Your task to perform on an android device: turn off priority inbox in the gmail app Image 0: 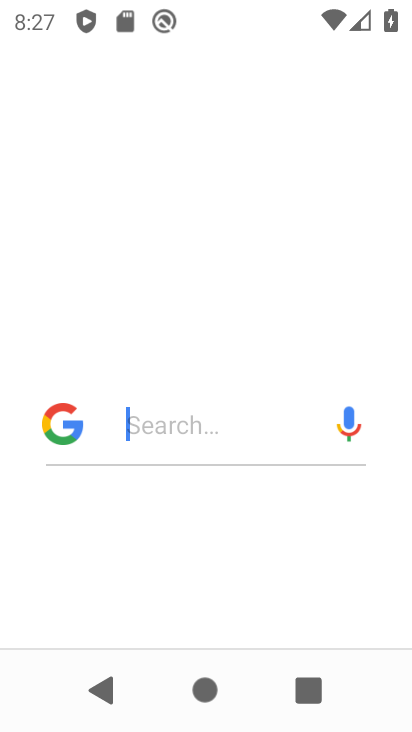
Step 0: press home button
Your task to perform on an android device: turn off priority inbox in the gmail app Image 1: 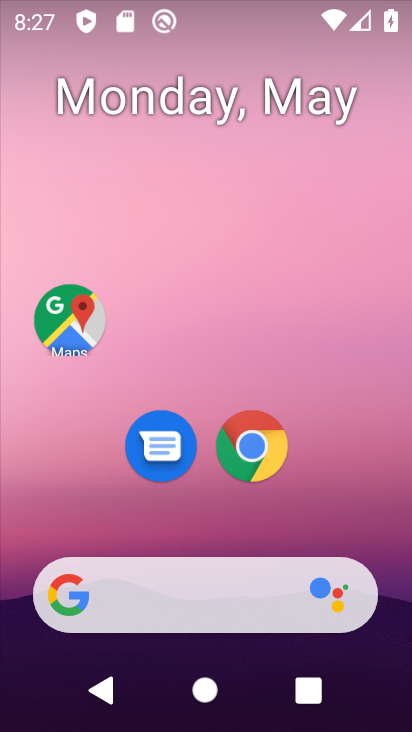
Step 1: drag from (209, 537) to (235, 1)
Your task to perform on an android device: turn off priority inbox in the gmail app Image 2: 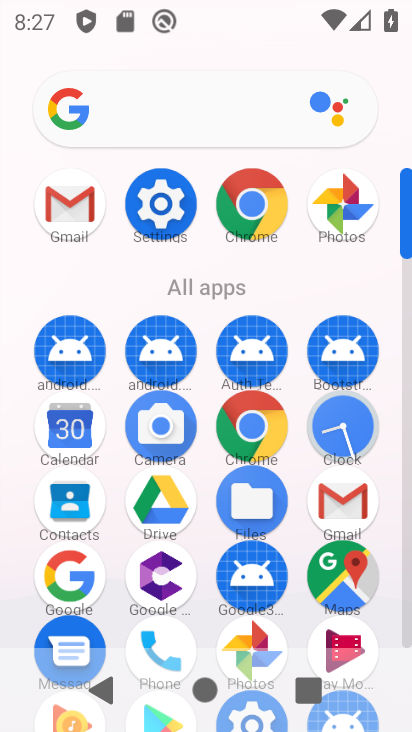
Step 2: click (67, 194)
Your task to perform on an android device: turn off priority inbox in the gmail app Image 3: 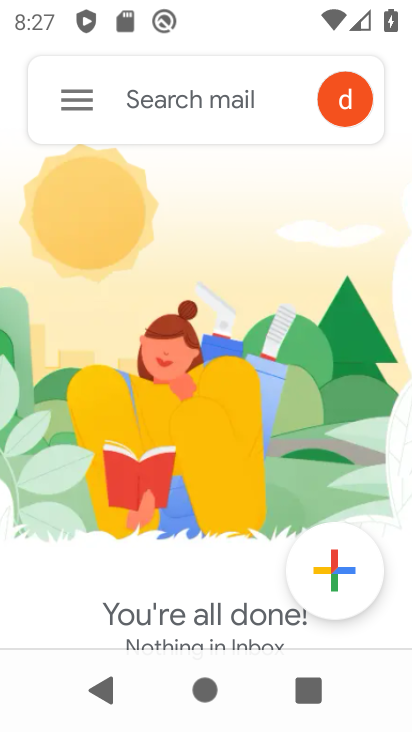
Step 3: click (71, 95)
Your task to perform on an android device: turn off priority inbox in the gmail app Image 4: 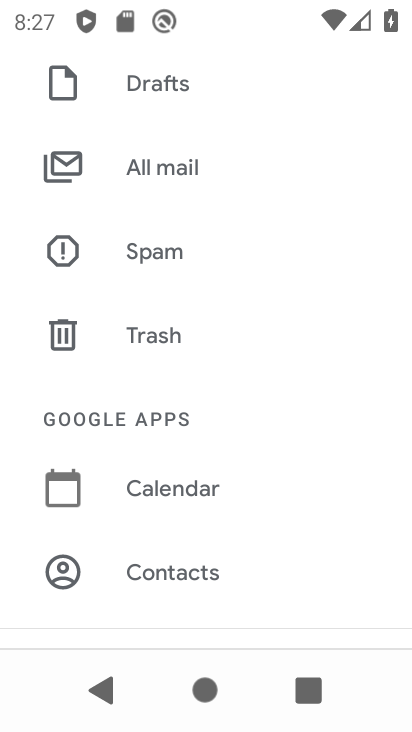
Step 4: drag from (206, 537) to (231, 45)
Your task to perform on an android device: turn off priority inbox in the gmail app Image 5: 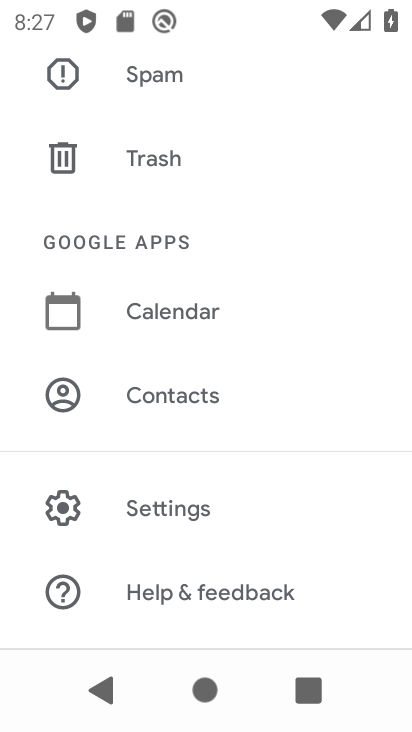
Step 5: click (219, 501)
Your task to perform on an android device: turn off priority inbox in the gmail app Image 6: 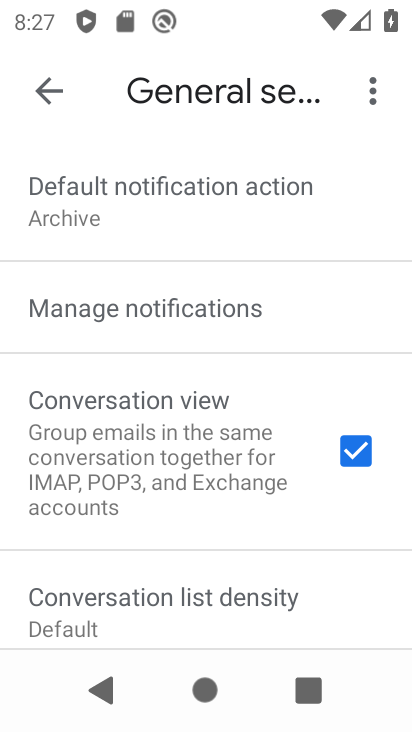
Step 6: click (49, 96)
Your task to perform on an android device: turn off priority inbox in the gmail app Image 7: 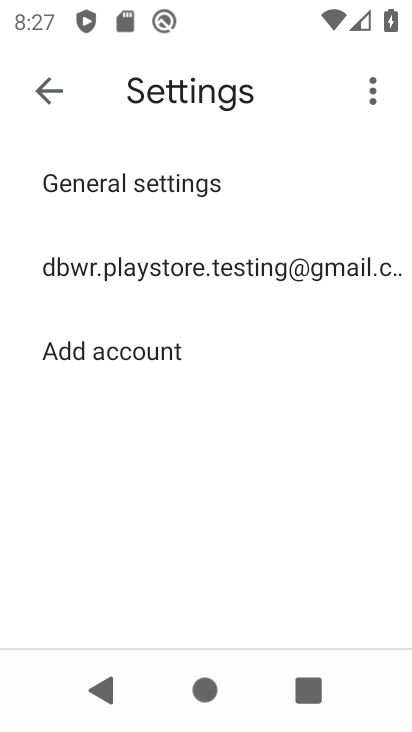
Step 7: click (242, 269)
Your task to perform on an android device: turn off priority inbox in the gmail app Image 8: 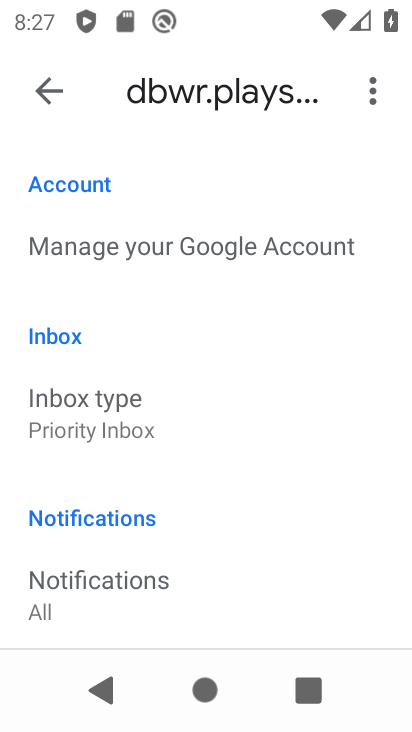
Step 8: click (163, 407)
Your task to perform on an android device: turn off priority inbox in the gmail app Image 9: 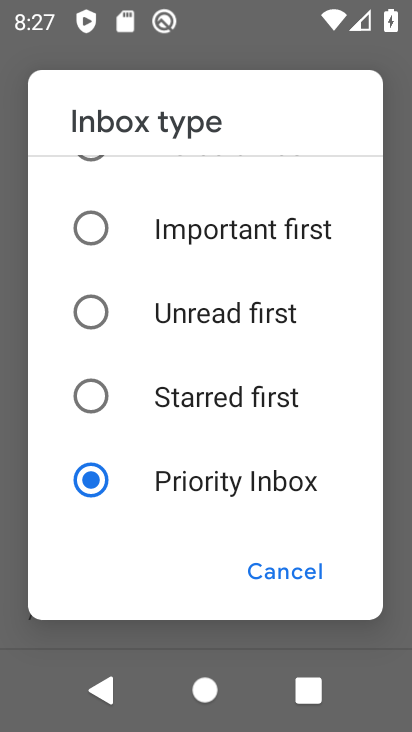
Step 9: drag from (125, 211) to (158, 485)
Your task to perform on an android device: turn off priority inbox in the gmail app Image 10: 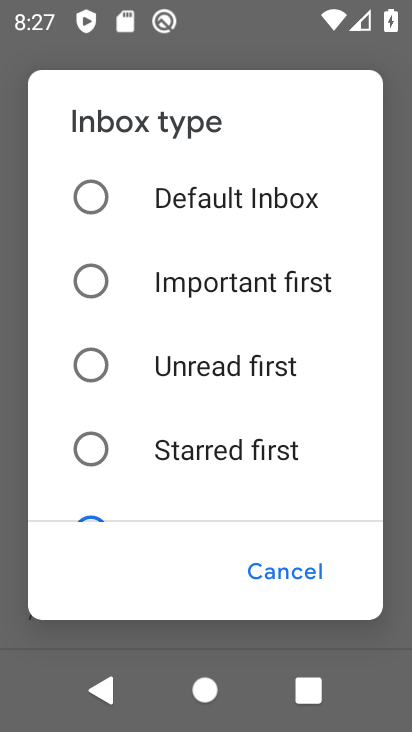
Step 10: click (89, 184)
Your task to perform on an android device: turn off priority inbox in the gmail app Image 11: 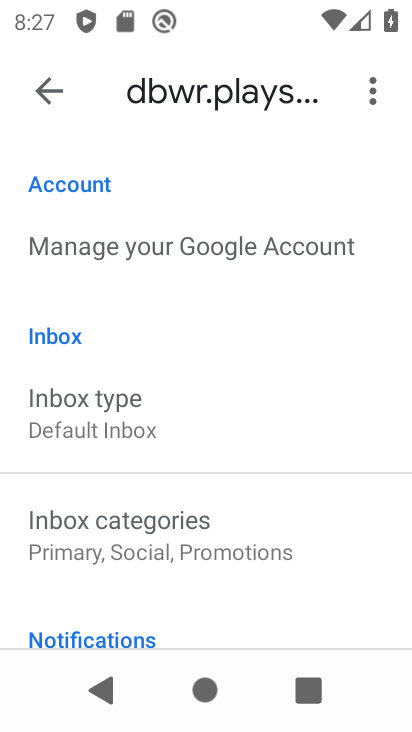
Step 11: task complete